Your task to perform on an android device: set the stopwatch Image 0: 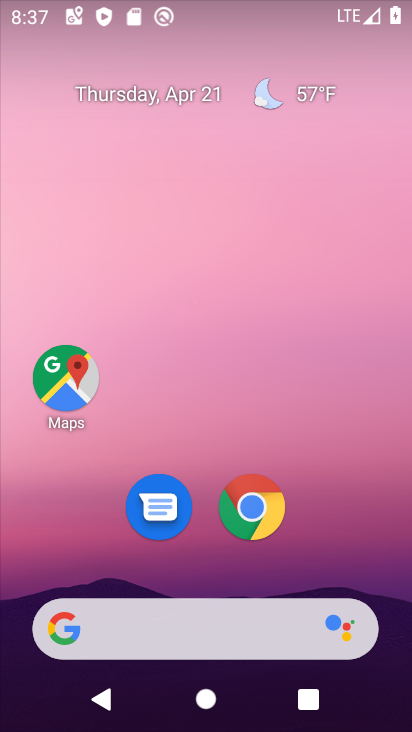
Step 0: drag from (335, 490) to (295, 18)
Your task to perform on an android device: set the stopwatch Image 1: 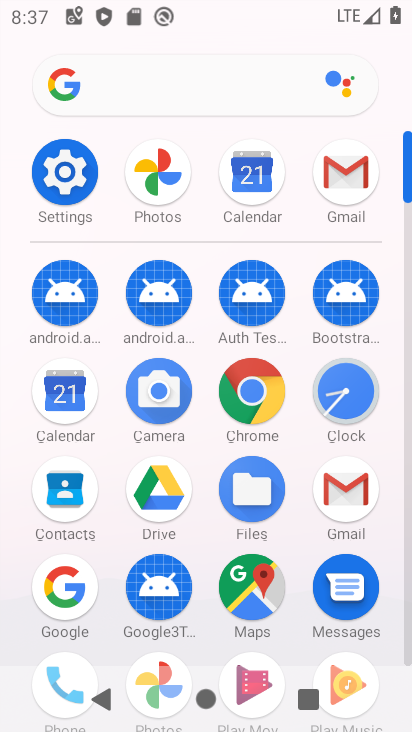
Step 1: click (352, 378)
Your task to perform on an android device: set the stopwatch Image 2: 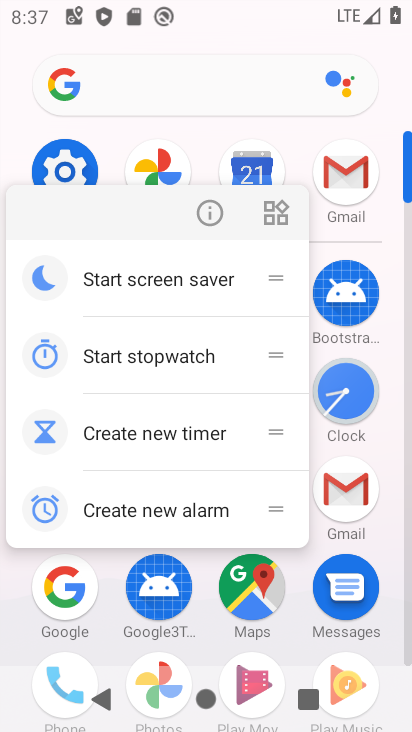
Step 2: click (336, 361)
Your task to perform on an android device: set the stopwatch Image 3: 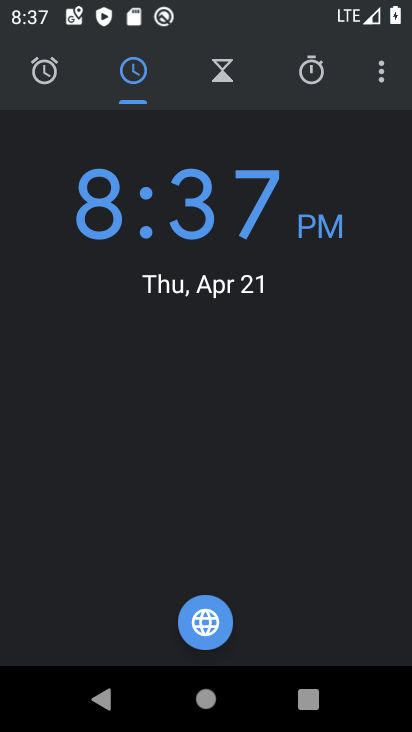
Step 3: click (301, 65)
Your task to perform on an android device: set the stopwatch Image 4: 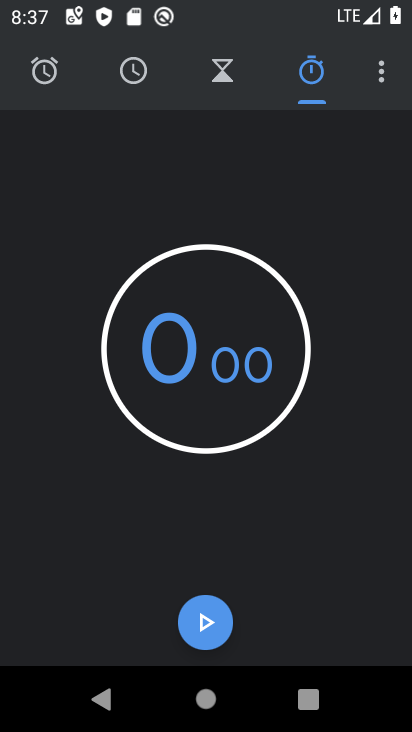
Step 4: click (213, 637)
Your task to perform on an android device: set the stopwatch Image 5: 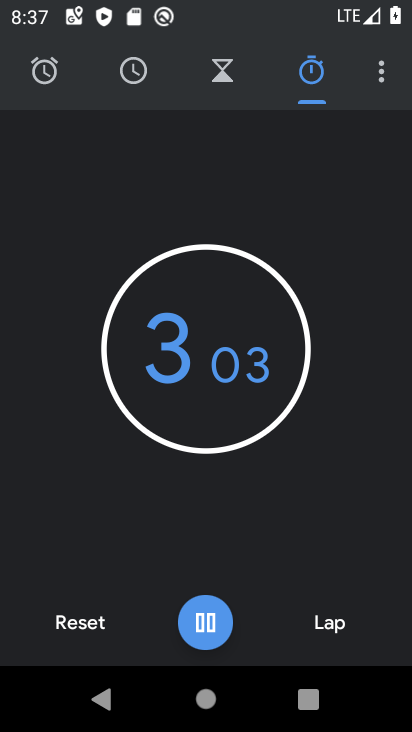
Step 5: task complete